Your task to perform on an android device: toggle notifications settings in the gmail app Image 0: 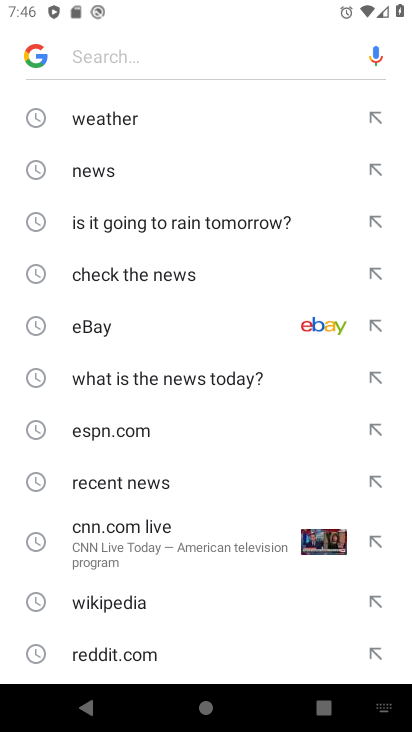
Step 0: press home button
Your task to perform on an android device: toggle notifications settings in the gmail app Image 1: 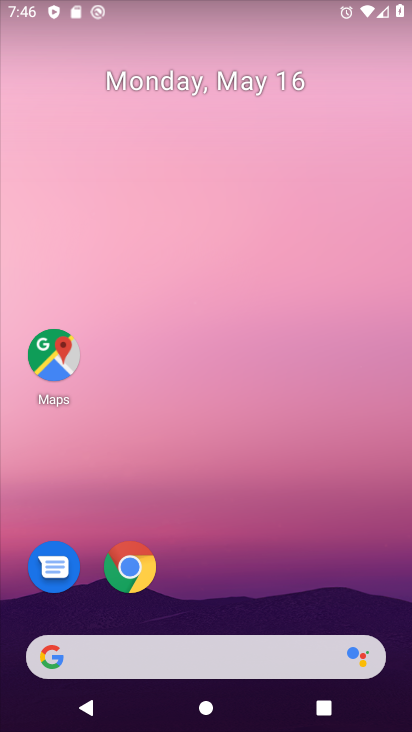
Step 1: drag from (199, 632) to (183, 351)
Your task to perform on an android device: toggle notifications settings in the gmail app Image 2: 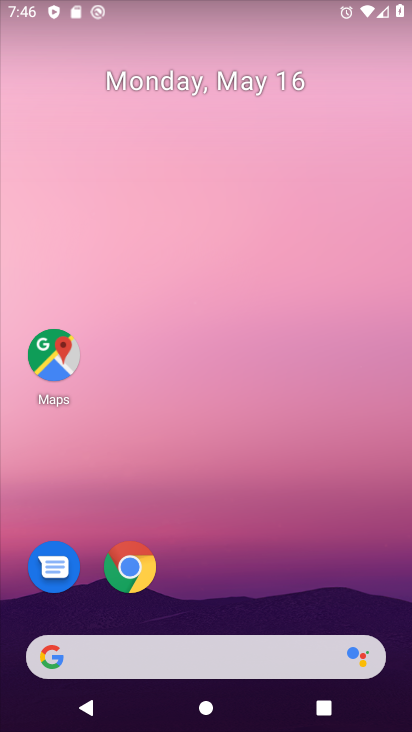
Step 2: drag from (219, 544) to (215, 138)
Your task to perform on an android device: toggle notifications settings in the gmail app Image 3: 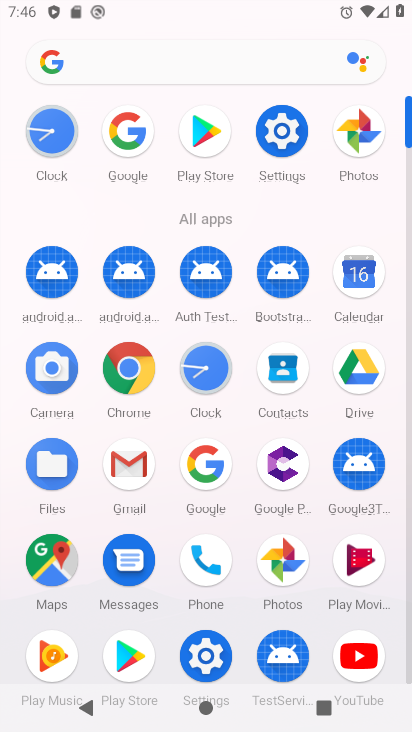
Step 3: click (135, 462)
Your task to perform on an android device: toggle notifications settings in the gmail app Image 4: 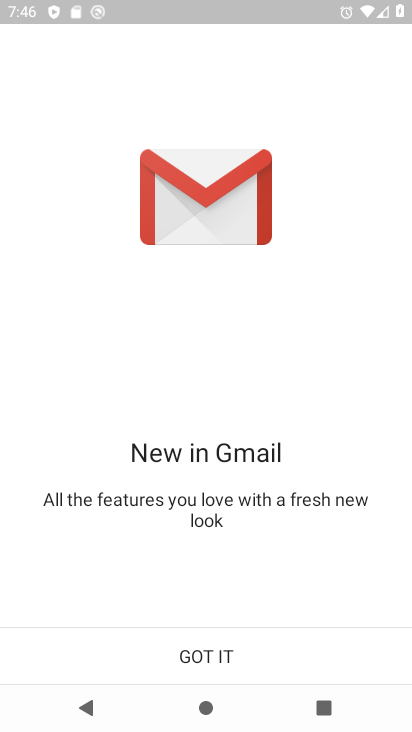
Step 4: click (219, 651)
Your task to perform on an android device: toggle notifications settings in the gmail app Image 5: 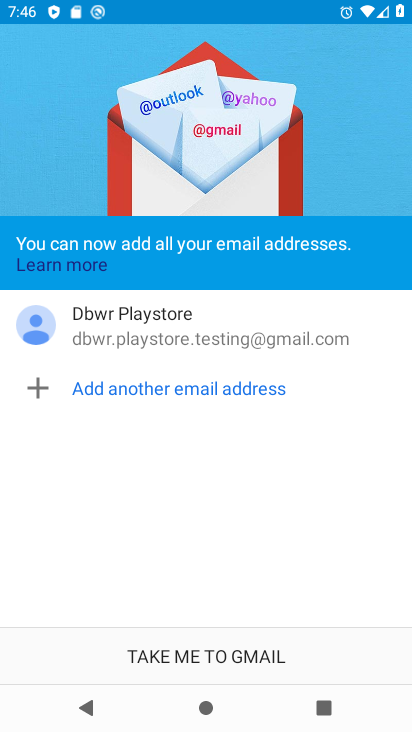
Step 5: click (218, 653)
Your task to perform on an android device: toggle notifications settings in the gmail app Image 6: 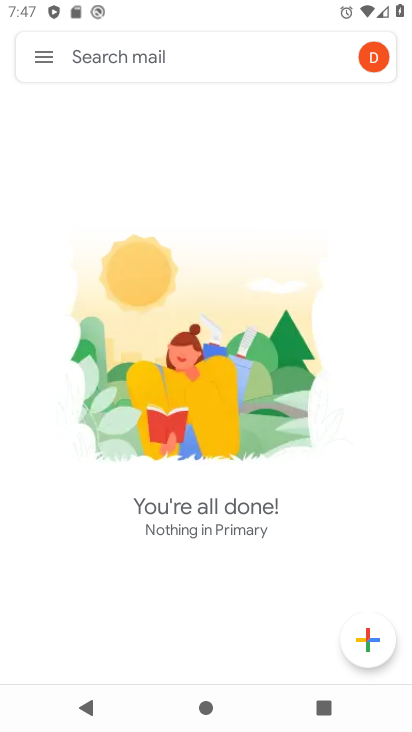
Step 6: click (39, 55)
Your task to perform on an android device: toggle notifications settings in the gmail app Image 7: 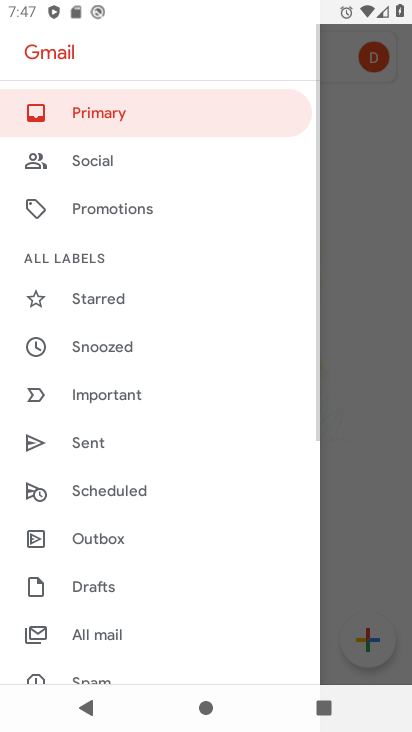
Step 7: drag from (126, 639) to (215, 80)
Your task to perform on an android device: toggle notifications settings in the gmail app Image 8: 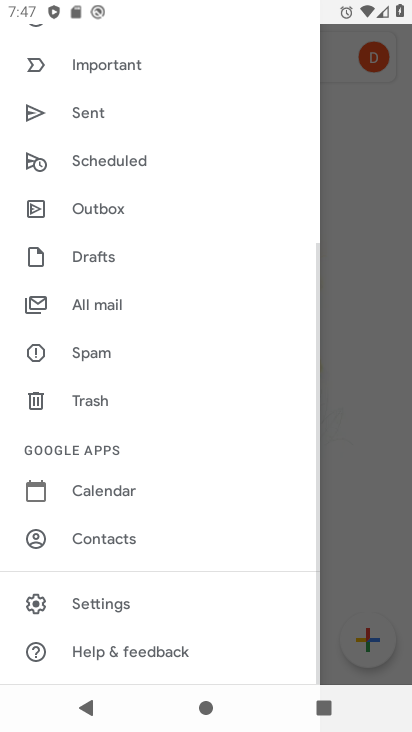
Step 8: click (116, 612)
Your task to perform on an android device: toggle notifications settings in the gmail app Image 9: 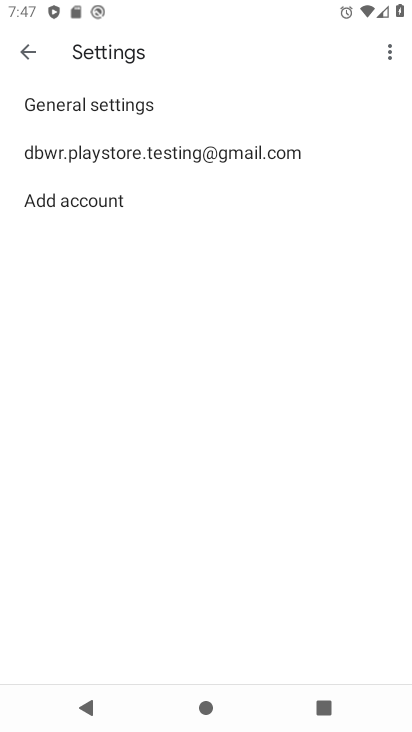
Step 9: click (132, 104)
Your task to perform on an android device: toggle notifications settings in the gmail app Image 10: 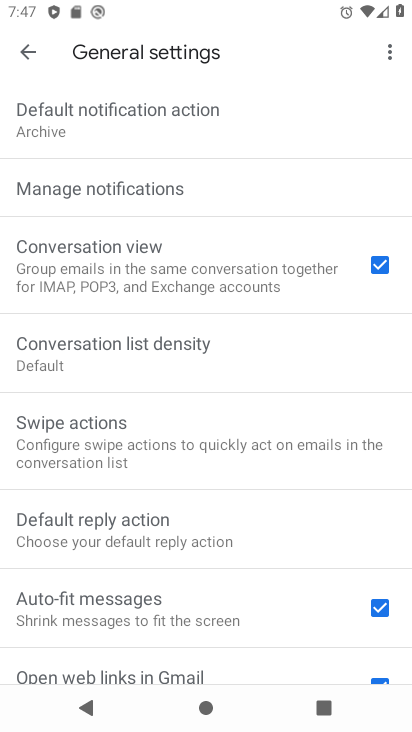
Step 10: drag from (234, 654) to (219, 336)
Your task to perform on an android device: toggle notifications settings in the gmail app Image 11: 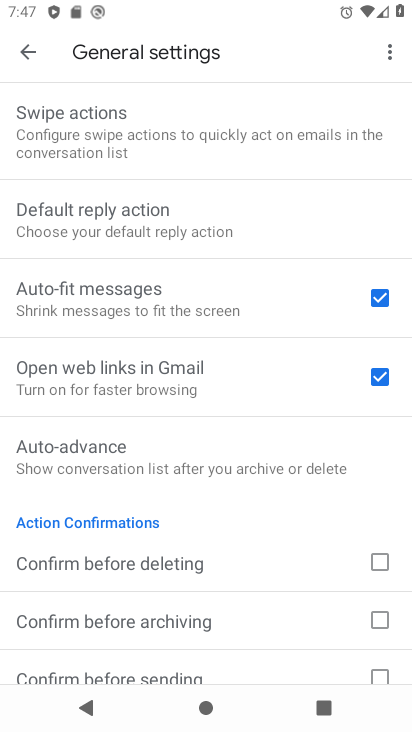
Step 11: drag from (216, 263) to (220, 493)
Your task to perform on an android device: toggle notifications settings in the gmail app Image 12: 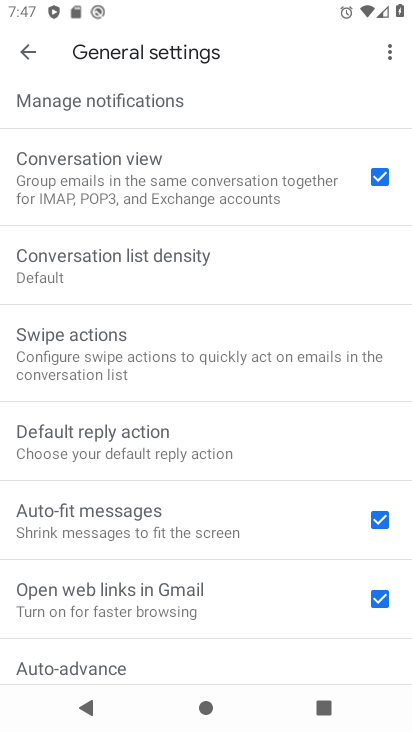
Step 12: click (121, 102)
Your task to perform on an android device: toggle notifications settings in the gmail app Image 13: 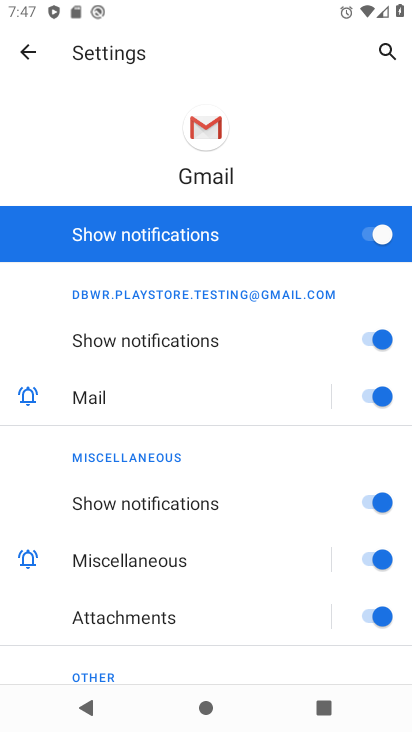
Step 13: click (368, 234)
Your task to perform on an android device: toggle notifications settings in the gmail app Image 14: 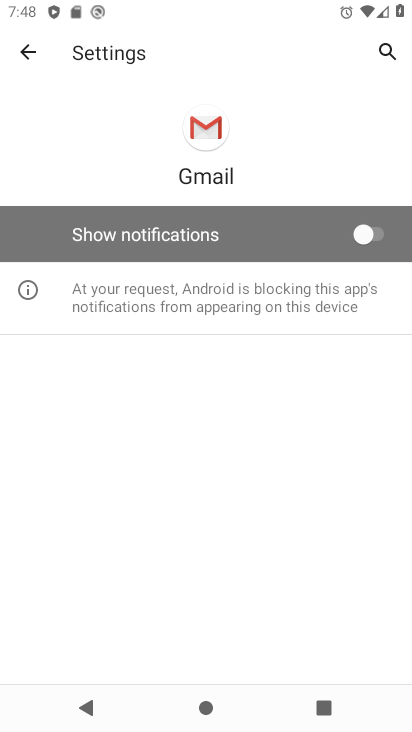
Step 14: task complete